Your task to perform on an android device: Open Android settings Image 0: 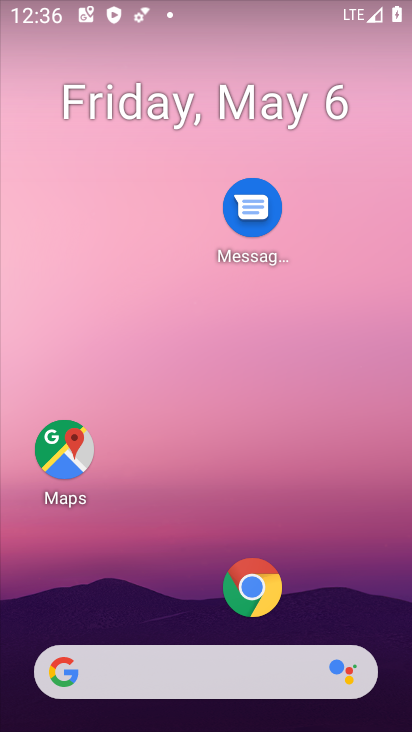
Step 0: drag from (194, 269) to (242, 68)
Your task to perform on an android device: Open Android settings Image 1: 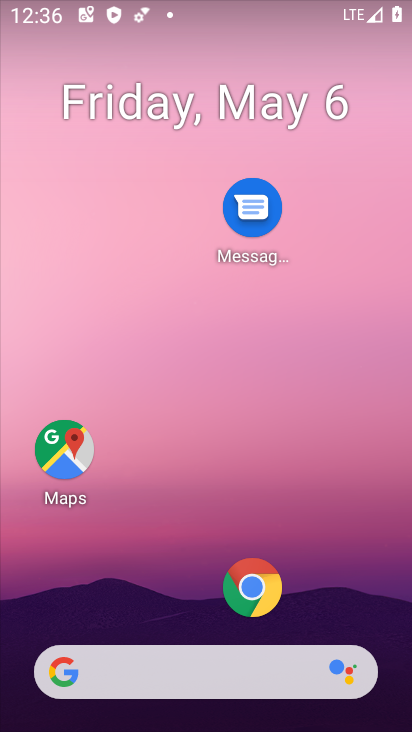
Step 1: drag from (174, 372) to (207, 92)
Your task to perform on an android device: Open Android settings Image 2: 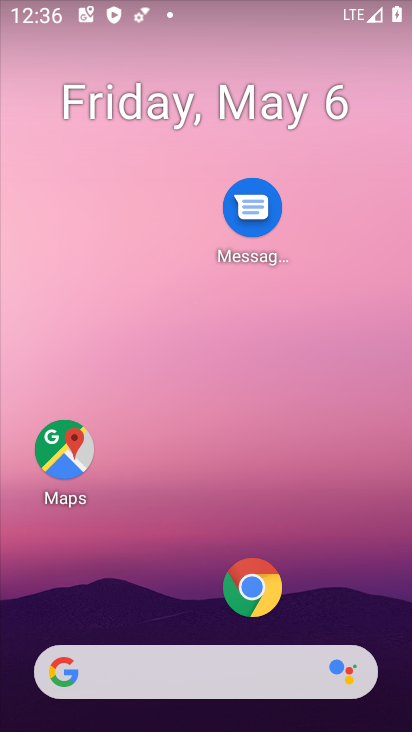
Step 2: drag from (159, 566) to (184, 84)
Your task to perform on an android device: Open Android settings Image 3: 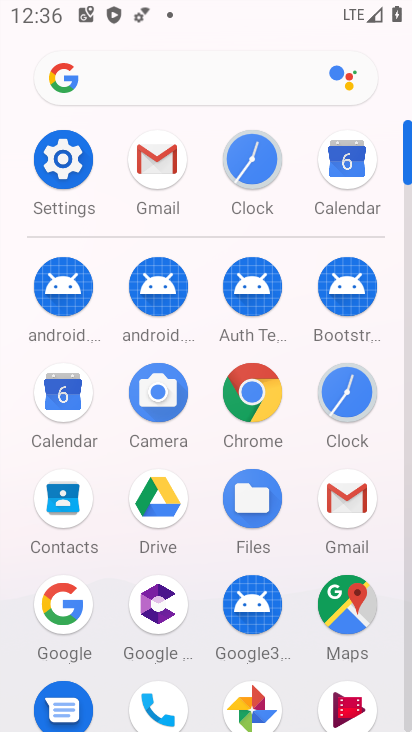
Step 3: click (60, 160)
Your task to perform on an android device: Open Android settings Image 4: 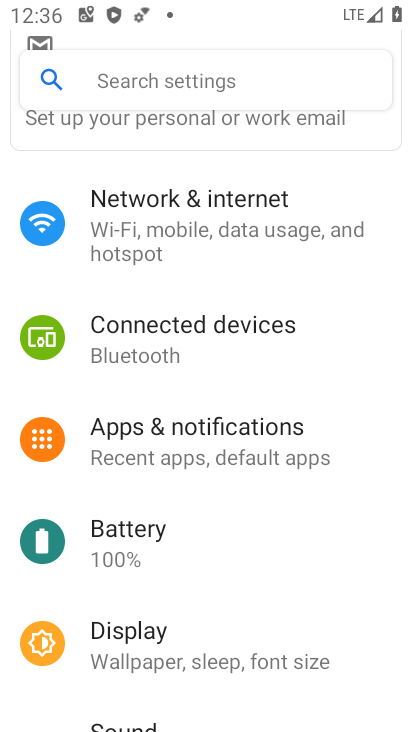
Step 4: drag from (218, 613) to (324, 77)
Your task to perform on an android device: Open Android settings Image 5: 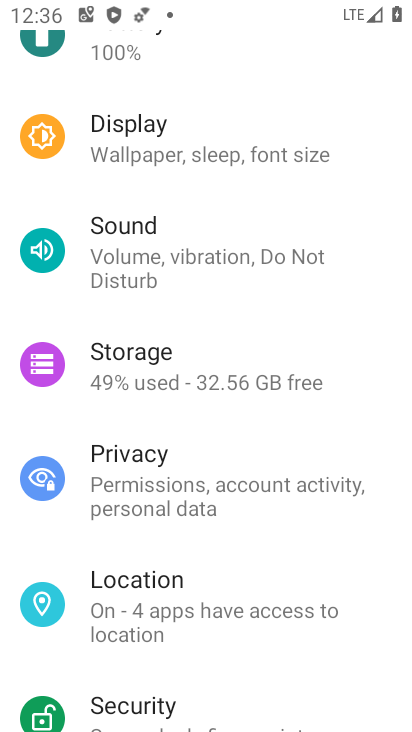
Step 5: drag from (155, 704) to (293, 113)
Your task to perform on an android device: Open Android settings Image 6: 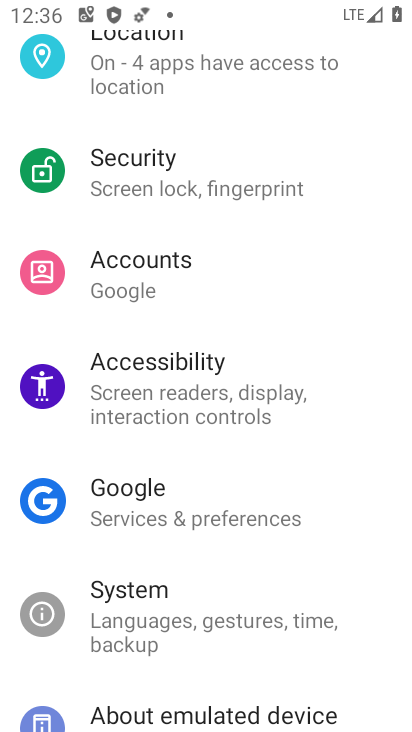
Step 6: drag from (171, 627) to (288, 102)
Your task to perform on an android device: Open Android settings Image 7: 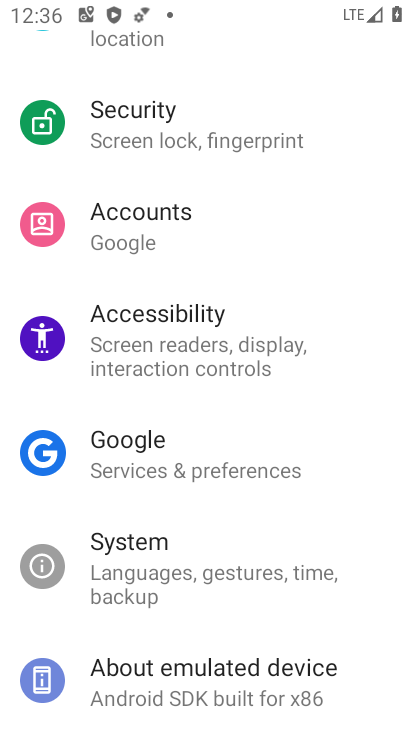
Step 7: drag from (201, 640) to (374, 71)
Your task to perform on an android device: Open Android settings Image 8: 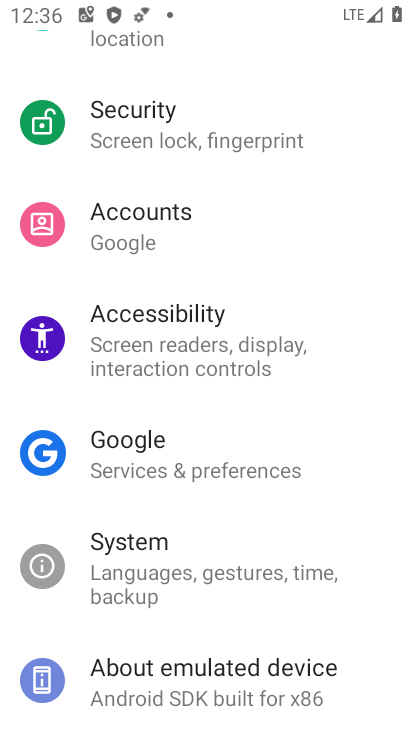
Step 8: drag from (268, 132) to (341, 54)
Your task to perform on an android device: Open Android settings Image 9: 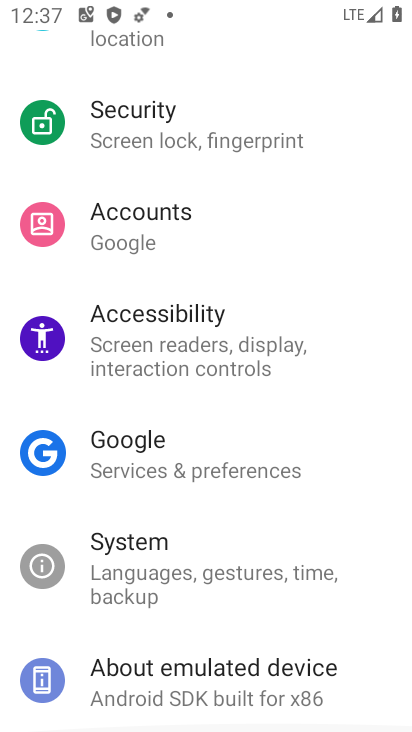
Step 9: click (209, 681)
Your task to perform on an android device: Open Android settings Image 10: 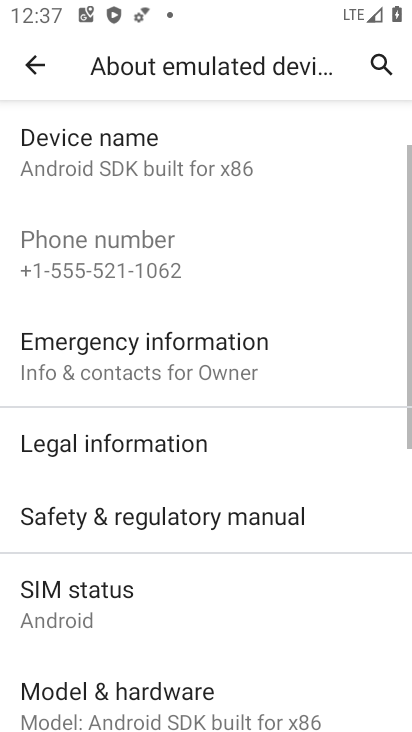
Step 10: drag from (171, 583) to (302, 122)
Your task to perform on an android device: Open Android settings Image 11: 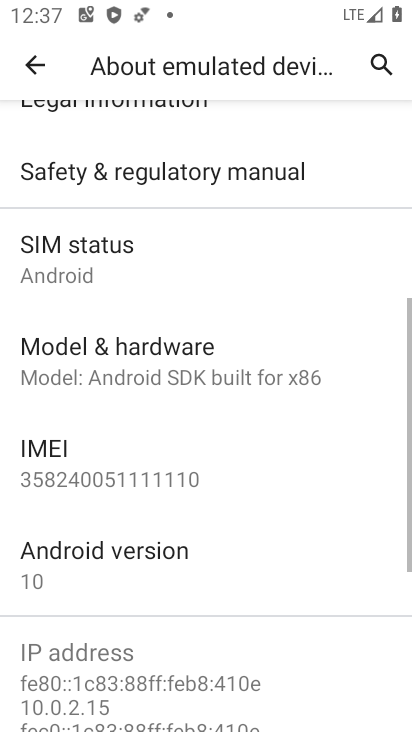
Step 11: click (87, 548)
Your task to perform on an android device: Open Android settings Image 12: 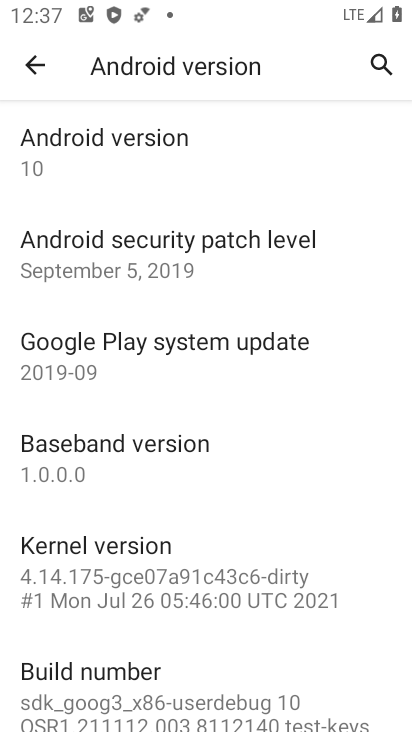
Step 12: click (87, 139)
Your task to perform on an android device: Open Android settings Image 13: 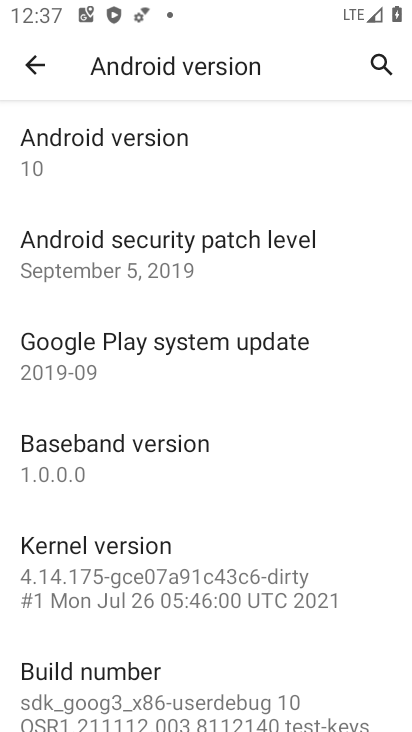
Step 13: task complete